Your task to perform on an android device: delete a single message in the gmail app Image 0: 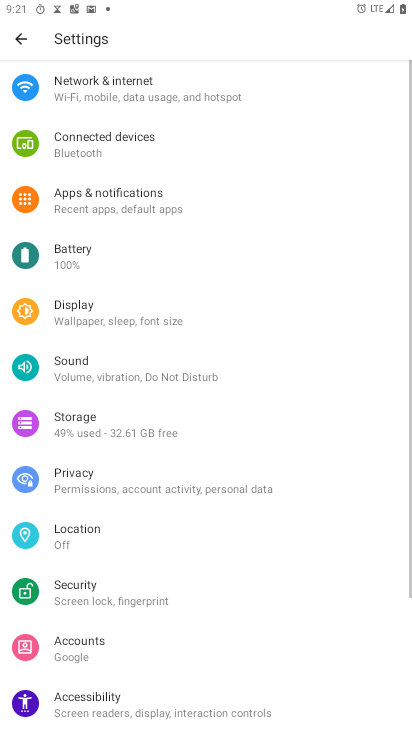
Step 0: press home button
Your task to perform on an android device: delete a single message in the gmail app Image 1: 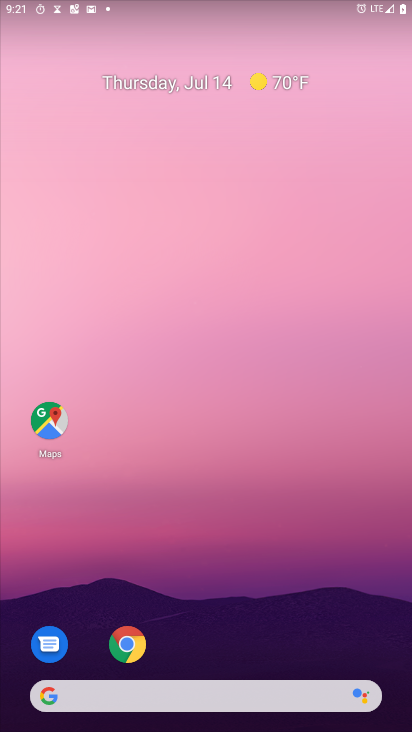
Step 1: drag from (121, 695) to (322, 66)
Your task to perform on an android device: delete a single message in the gmail app Image 2: 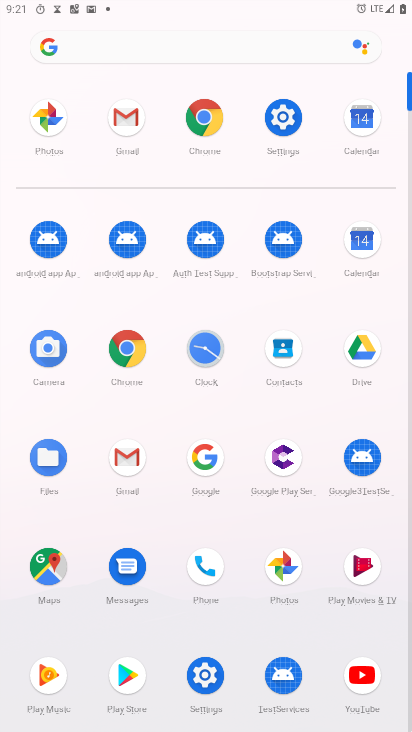
Step 2: click (131, 126)
Your task to perform on an android device: delete a single message in the gmail app Image 3: 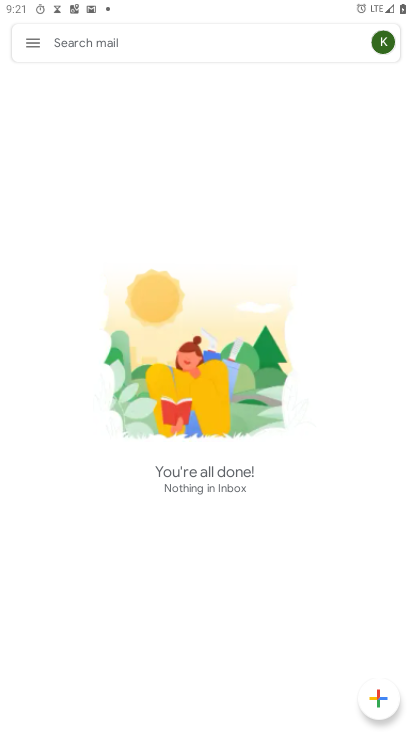
Step 3: click (29, 40)
Your task to perform on an android device: delete a single message in the gmail app Image 4: 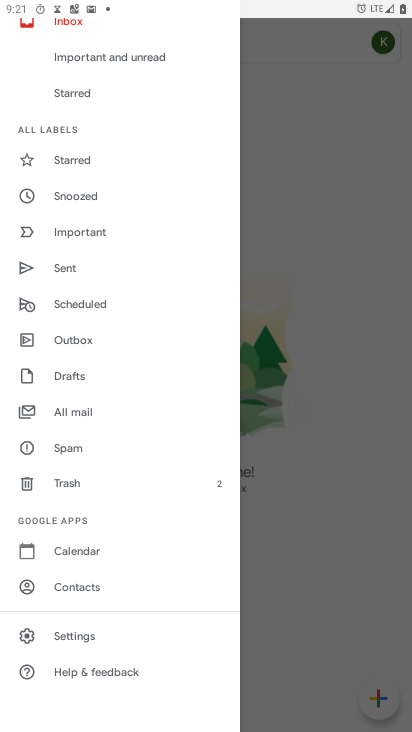
Step 4: click (122, 408)
Your task to perform on an android device: delete a single message in the gmail app Image 5: 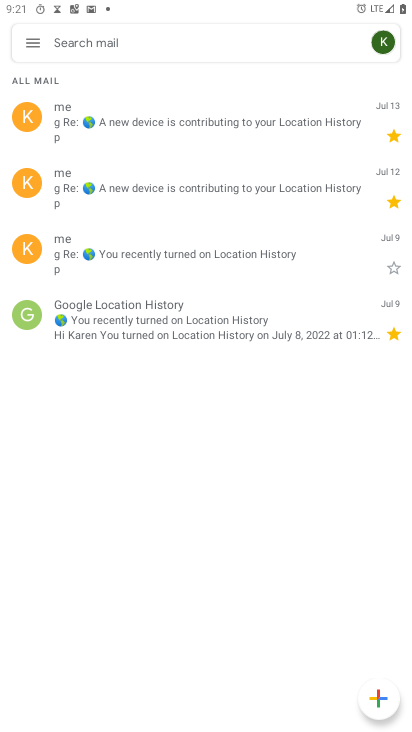
Step 5: click (30, 115)
Your task to perform on an android device: delete a single message in the gmail app Image 6: 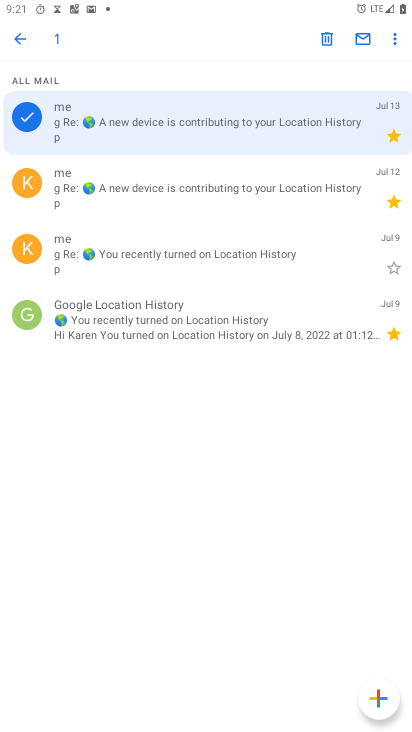
Step 6: click (324, 37)
Your task to perform on an android device: delete a single message in the gmail app Image 7: 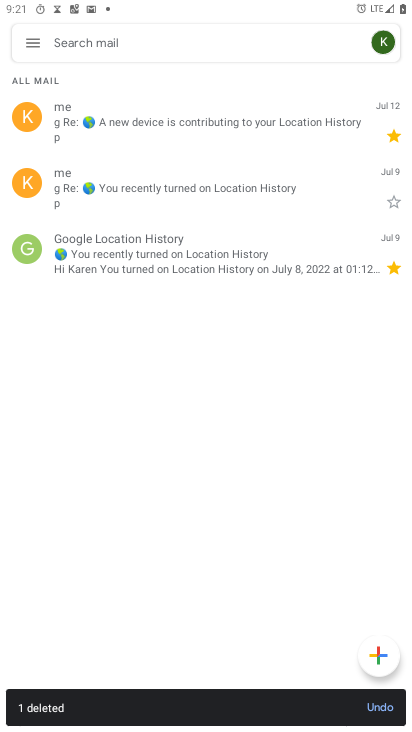
Step 7: task complete